Your task to perform on an android device: change notification settings in the gmail app Image 0: 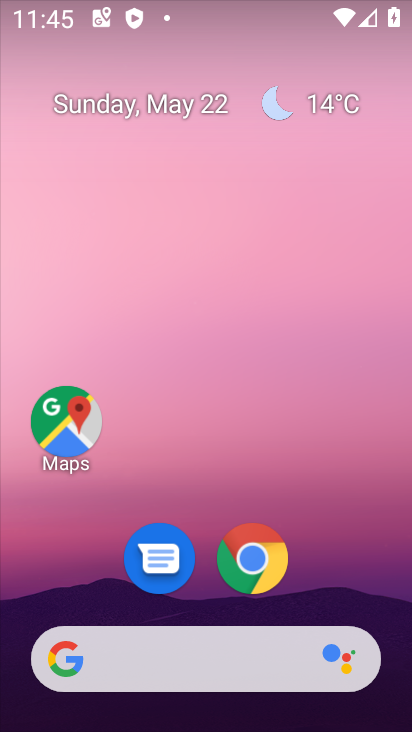
Step 0: drag from (339, 570) to (385, 1)
Your task to perform on an android device: change notification settings in the gmail app Image 1: 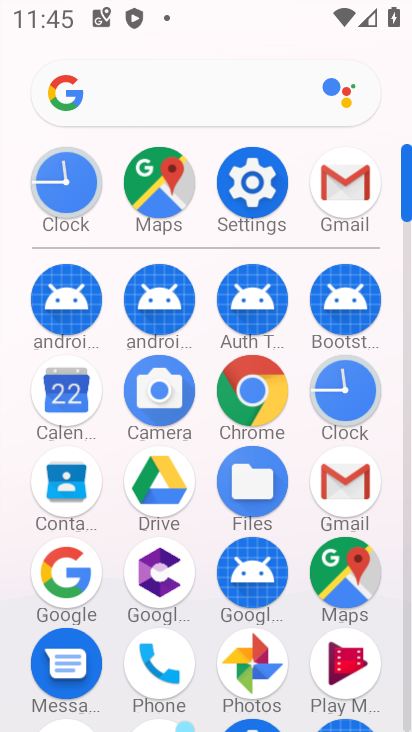
Step 1: click (353, 192)
Your task to perform on an android device: change notification settings in the gmail app Image 2: 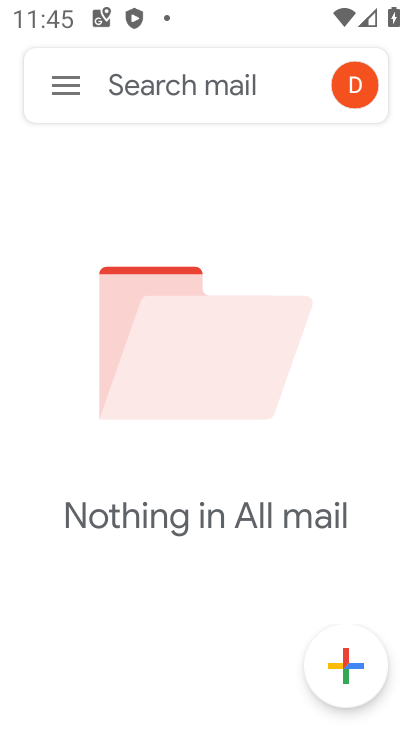
Step 2: click (66, 84)
Your task to perform on an android device: change notification settings in the gmail app Image 3: 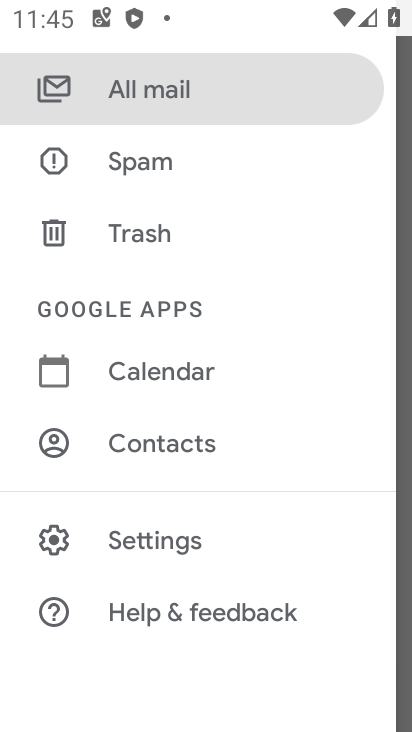
Step 3: click (141, 539)
Your task to perform on an android device: change notification settings in the gmail app Image 4: 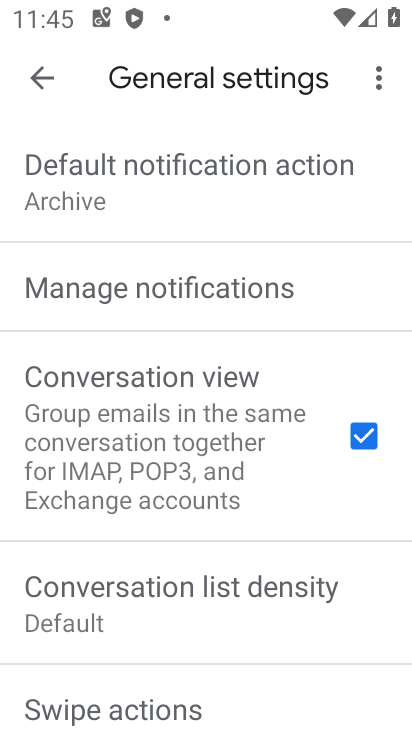
Step 4: click (113, 296)
Your task to perform on an android device: change notification settings in the gmail app Image 5: 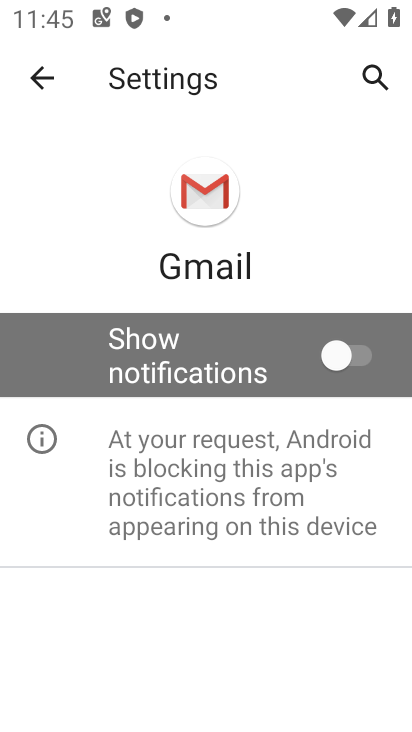
Step 5: click (337, 361)
Your task to perform on an android device: change notification settings in the gmail app Image 6: 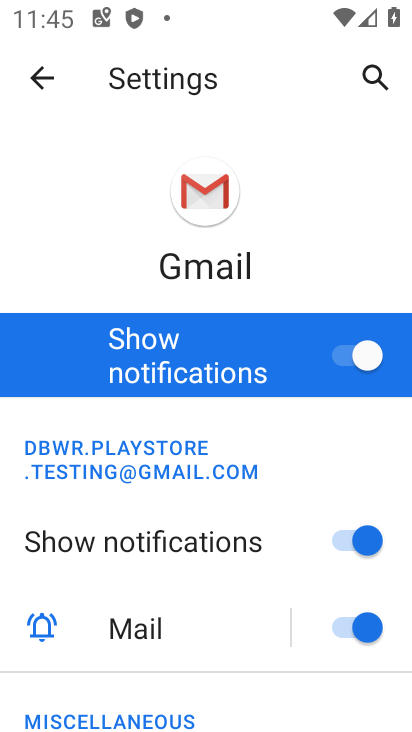
Step 6: task complete